Your task to perform on an android device: toggle priority inbox in the gmail app Image 0: 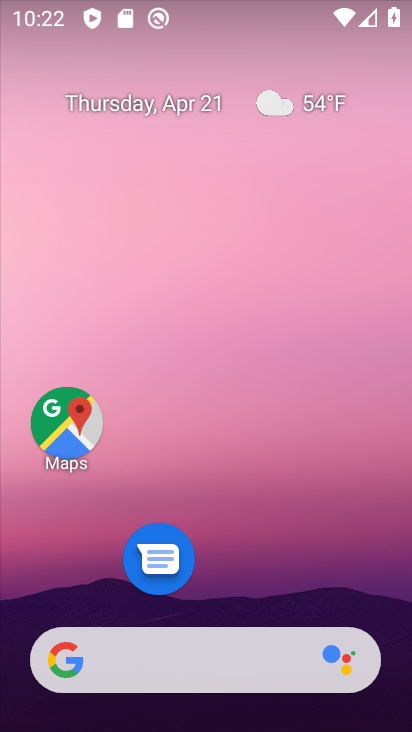
Step 0: drag from (291, 496) to (295, 48)
Your task to perform on an android device: toggle priority inbox in the gmail app Image 1: 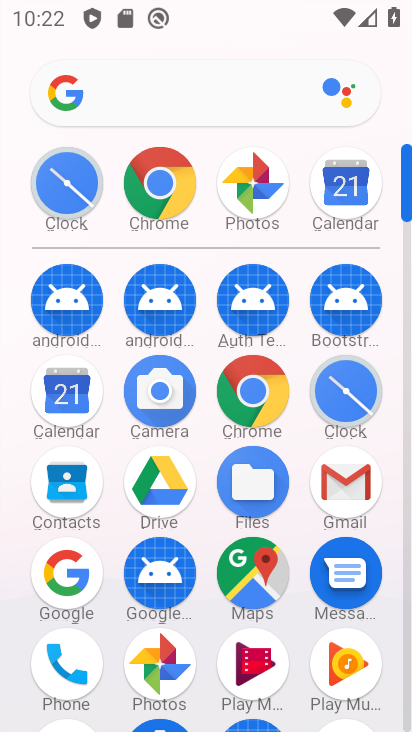
Step 1: click (342, 487)
Your task to perform on an android device: toggle priority inbox in the gmail app Image 2: 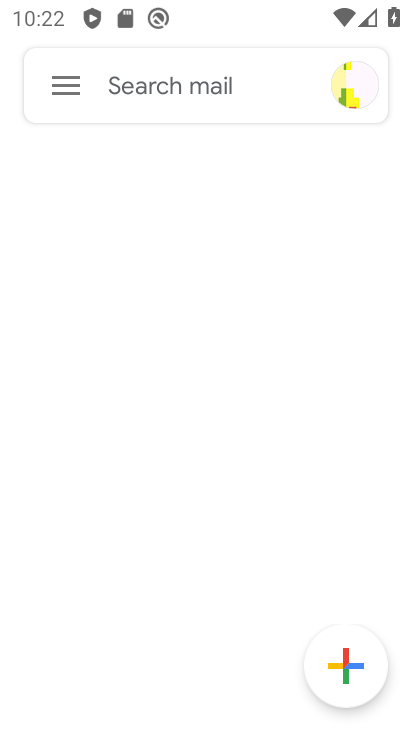
Step 2: click (61, 84)
Your task to perform on an android device: toggle priority inbox in the gmail app Image 3: 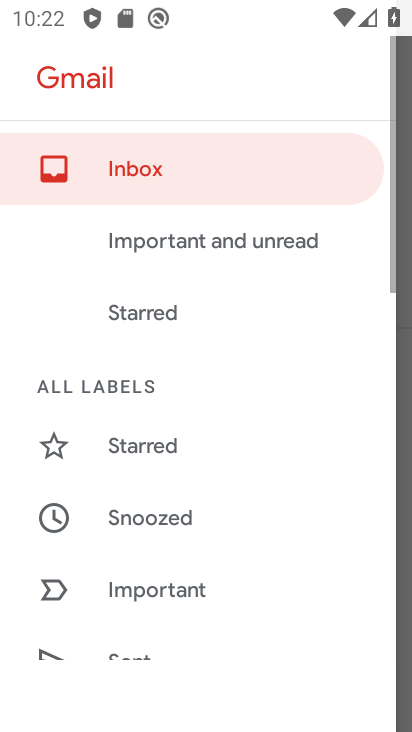
Step 3: drag from (178, 626) to (243, 95)
Your task to perform on an android device: toggle priority inbox in the gmail app Image 4: 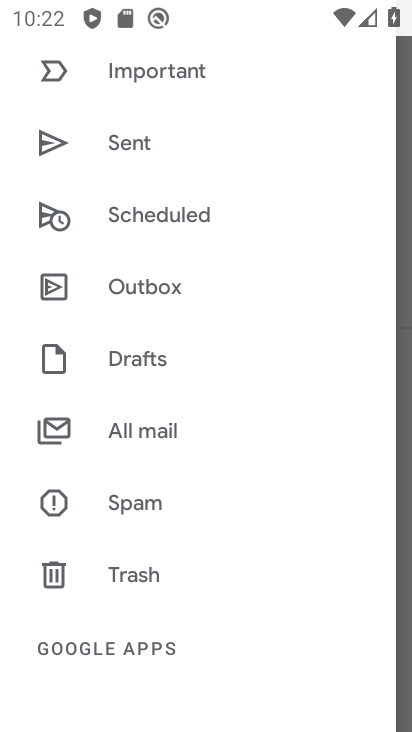
Step 4: drag from (191, 607) to (249, 140)
Your task to perform on an android device: toggle priority inbox in the gmail app Image 5: 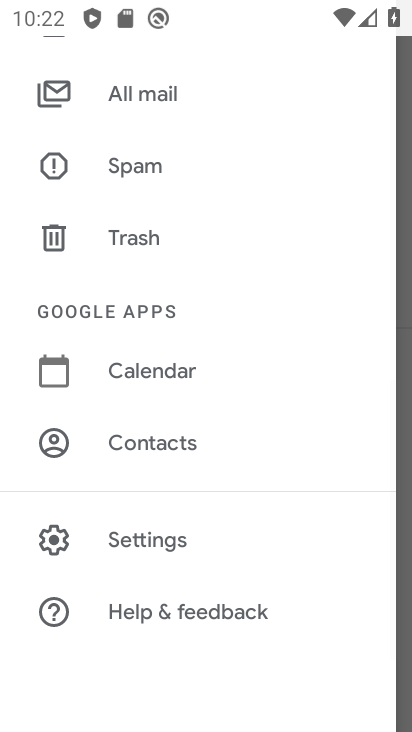
Step 5: click (170, 537)
Your task to perform on an android device: toggle priority inbox in the gmail app Image 6: 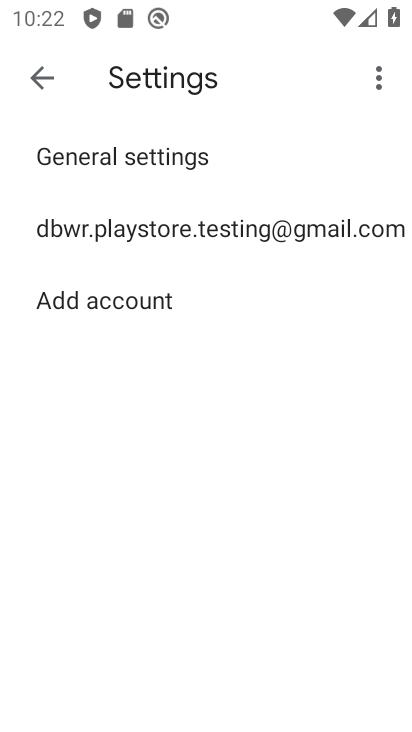
Step 6: click (137, 228)
Your task to perform on an android device: toggle priority inbox in the gmail app Image 7: 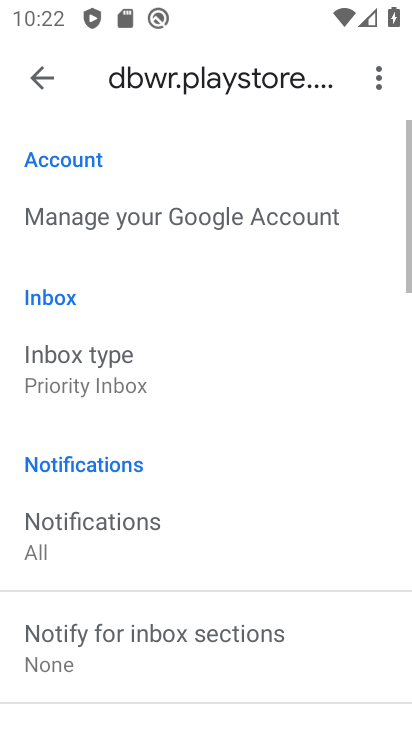
Step 7: click (93, 371)
Your task to perform on an android device: toggle priority inbox in the gmail app Image 8: 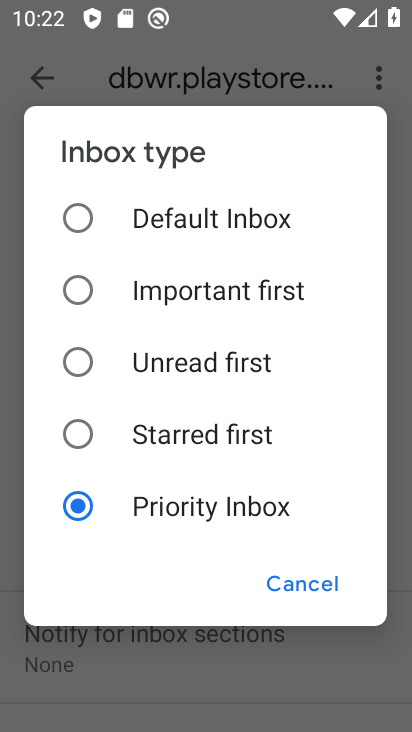
Step 8: click (79, 505)
Your task to perform on an android device: toggle priority inbox in the gmail app Image 9: 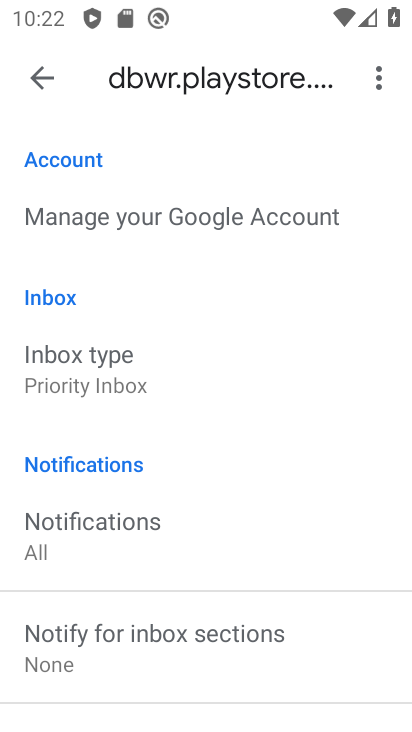
Step 9: task complete